Your task to perform on an android device: turn notification dots on Image 0: 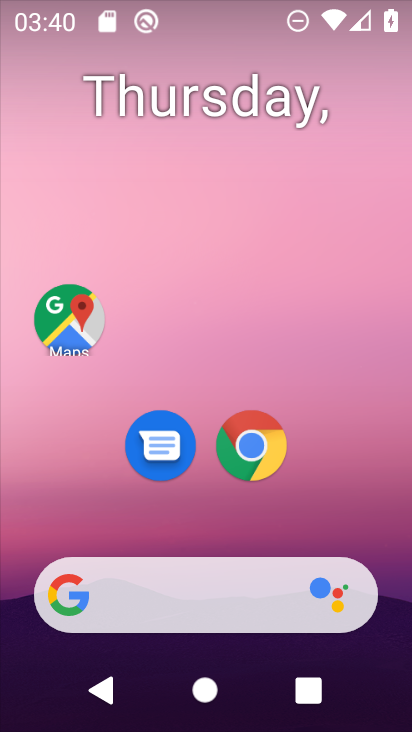
Step 0: drag from (385, 571) to (394, 24)
Your task to perform on an android device: turn notification dots on Image 1: 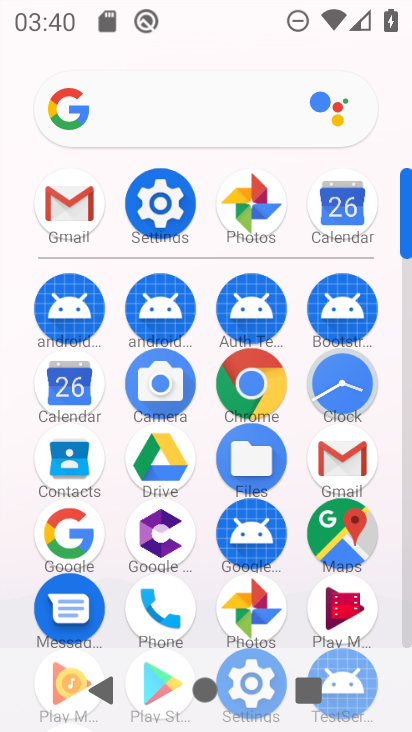
Step 1: click (158, 205)
Your task to perform on an android device: turn notification dots on Image 2: 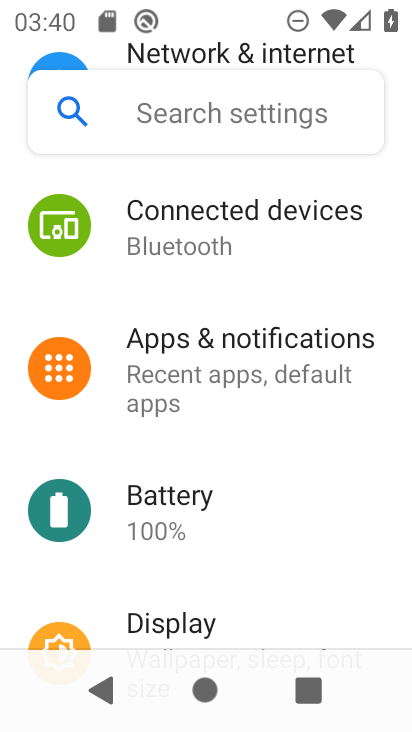
Step 2: click (238, 364)
Your task to perform on an android device: turn notification dots on Image 3: 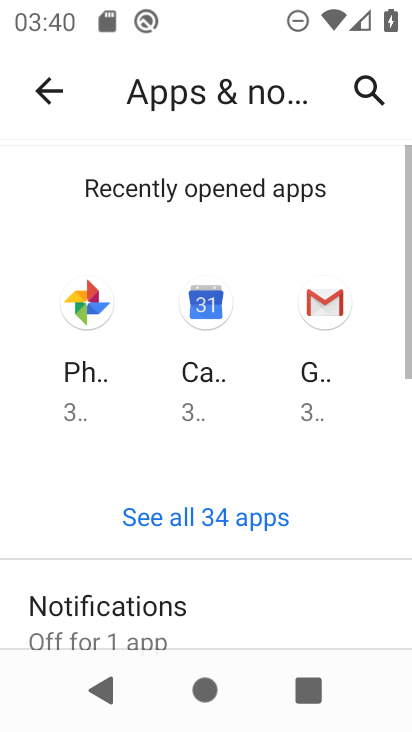
Step 3: drag from (168, 553) to (193, 107)
Your task to perform on an android device: turn notification dots on Image 4: 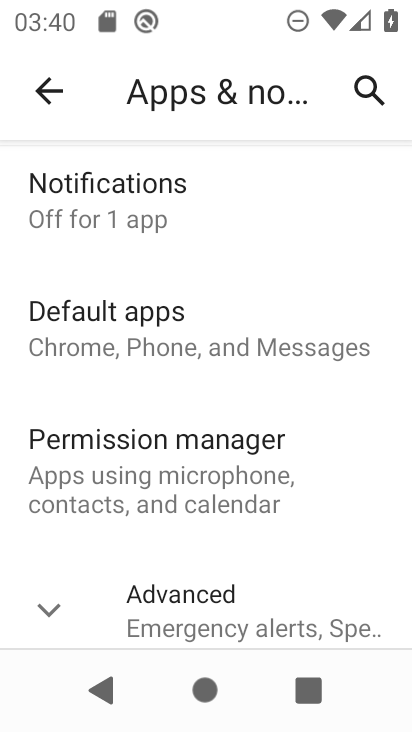
Step 4: click (93, 217)
Your task to perform on an android device: turn notification dots on Image 5: 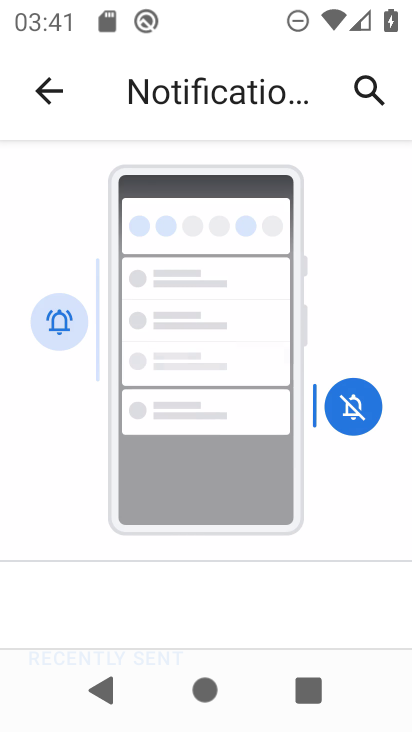
Step 5: drag from (245, 578) to (207, 69)
Your task to perform on an android device: turn notification dots on Image 6: 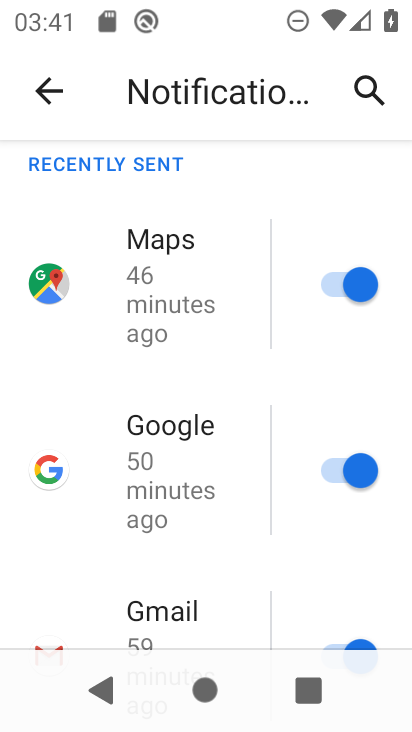
Step 6: drag from (203, 557) to (196, 98)
Your task to perform on an android device: turn notification dots on Image 7: 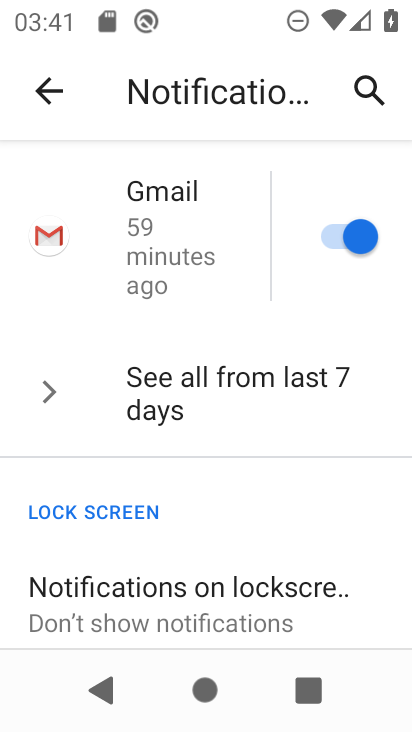
Step 7: drag from (226, 469) to (198, 41)
Your task to perform on an android device: turn notification dots on Image 8: 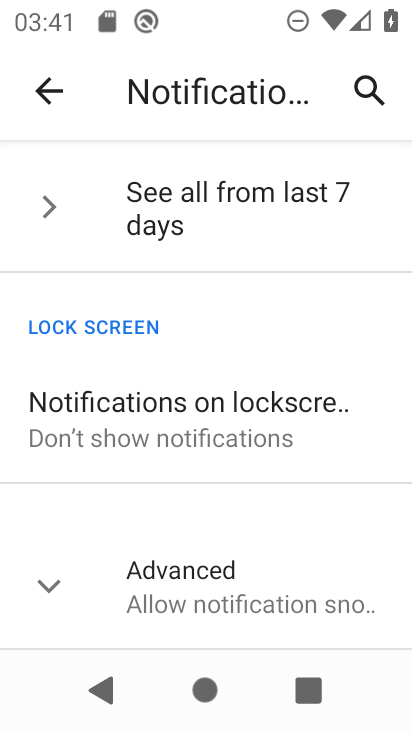
Step 8: click (44, 592)
Your task to perform on an android device: turn notification dots on Image 9: 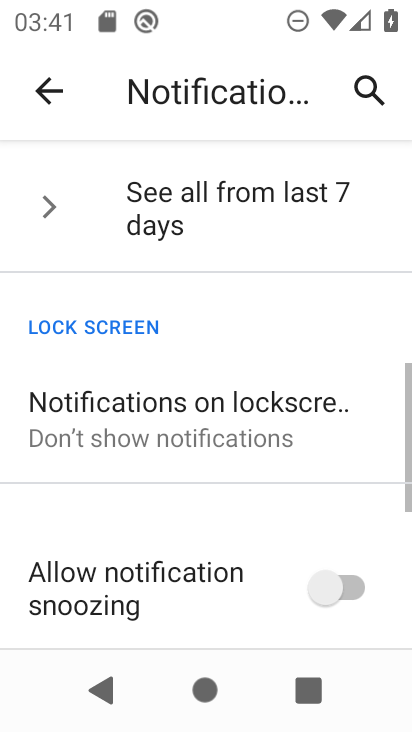
Step 9: task complete